Your task to perform on an android device: Open Google Chrome Image 0: 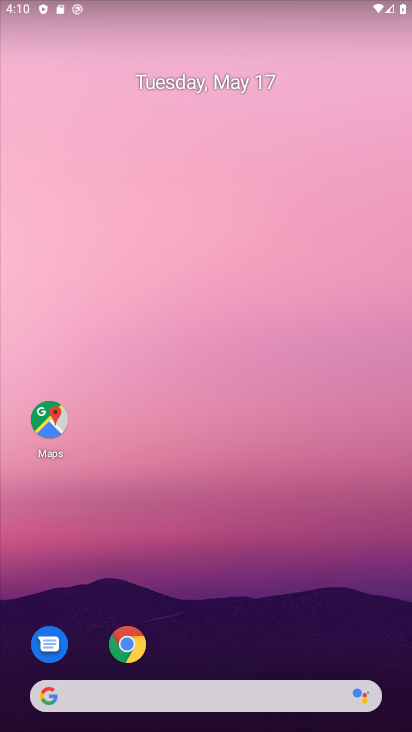
Step 0: drag from (283, 636) to (294, 198)
Your task to perform on an android device: Open Google Chrome Image 1: 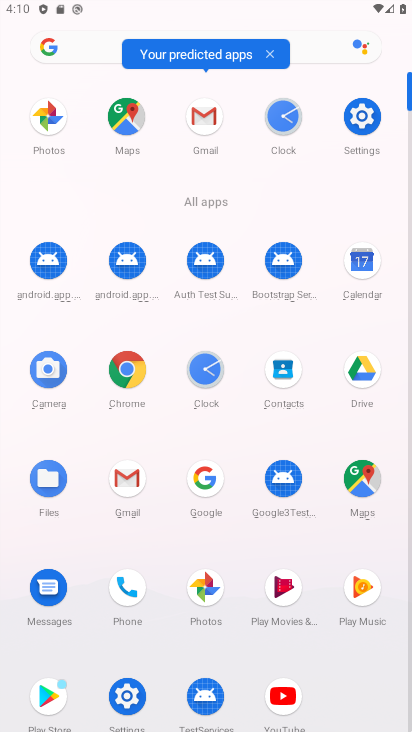
Step 1: click (128, 383)
Your task to perform on an android device: Open Google Chrome Image 2: 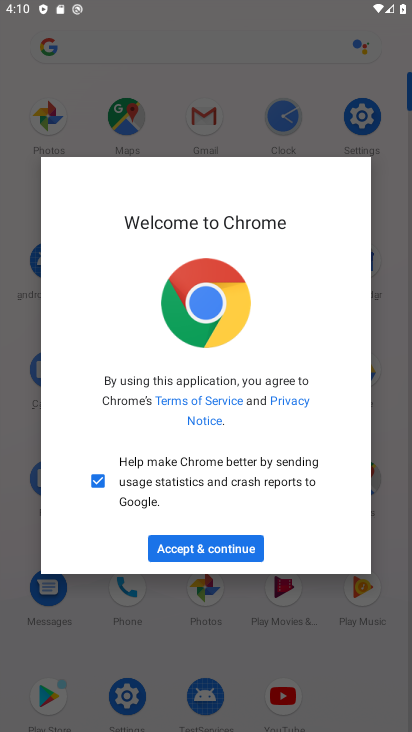
Step 2: click (181, 549)
Your task to perform on an android device: Open Google Chrome Image 3: 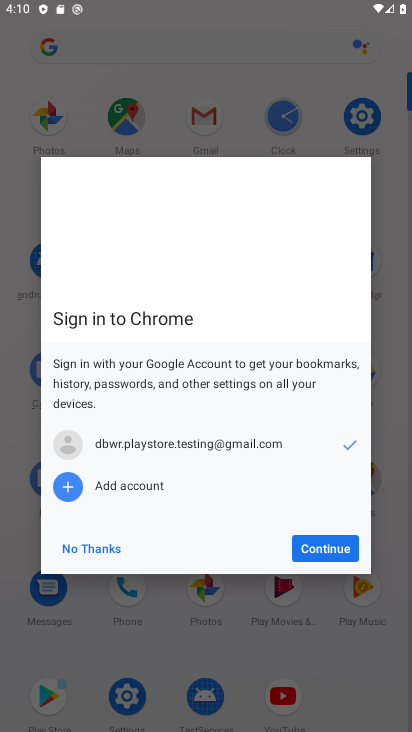
Step 3: click (331, 553)
Your task to perform on an android device: Open Google Chrome Image 4: 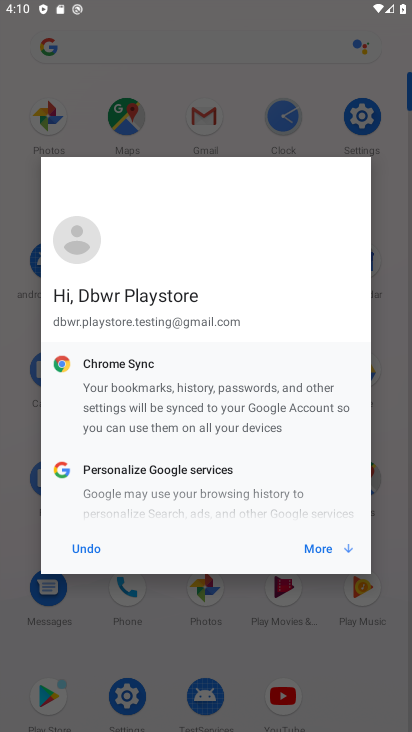
Step 4: click (331, 553)
Your task to perform on an android device: Open Google Chrome Image 5: 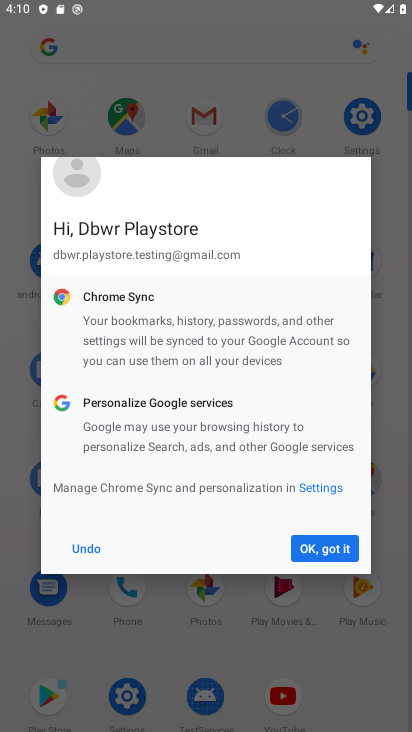
Step 5: click (331, 553)
Your task to perform on an android device: Open Google Chrome Image 6: 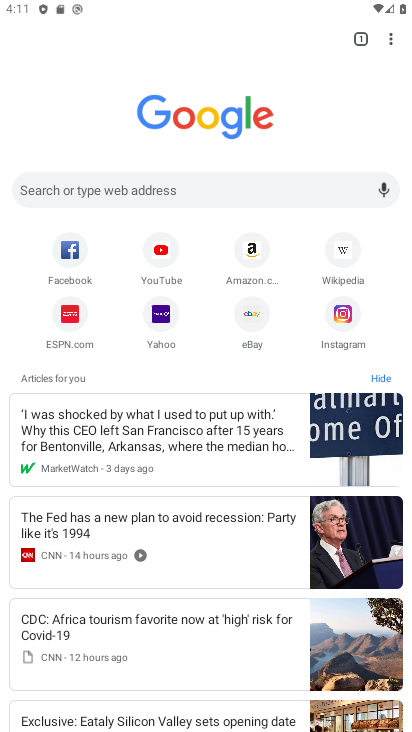
Step 6: task complete